Your task to perform on an android device: turn on translation in the chrome app Image 0: 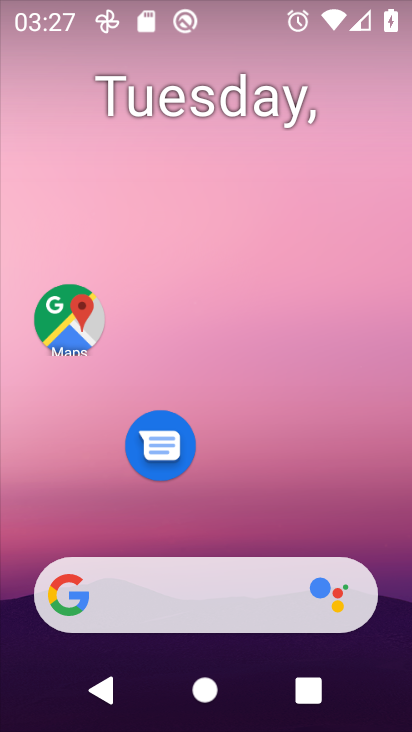
Step 0: click (315, 416)
Your task to perform on an android device: turn on translation in the chrome app Image 1: 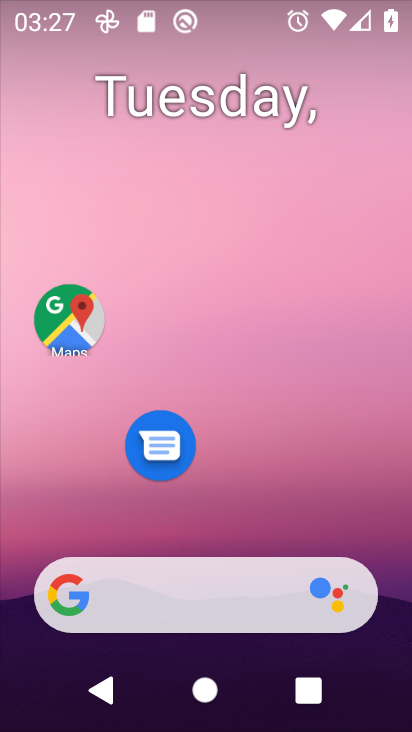
Step 1: drag from (270, 511) to (151, 8)
Your task to perform on an android device: turn on translation in the chrome app Image 2: 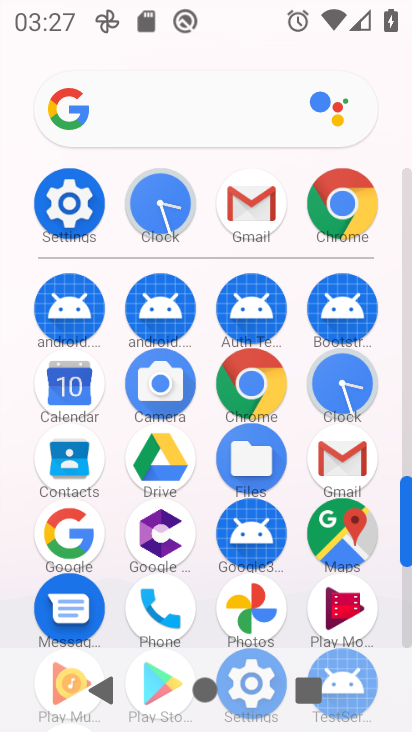
Step 2: click (248, 377)
Your task to perform on an android device: turn on translation in the chrome app Image 3: 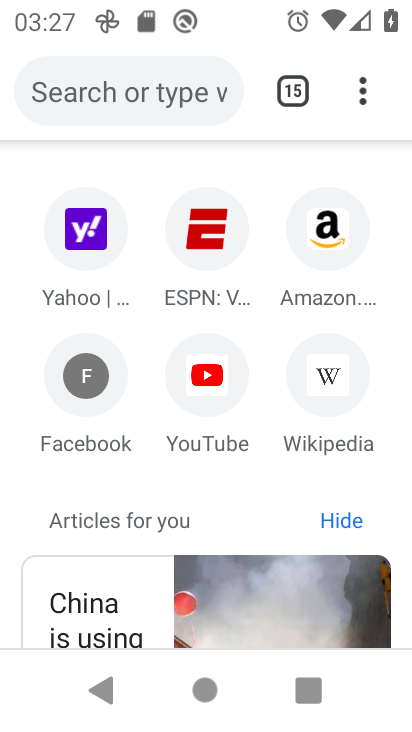
Step 3: click (362, 88)
Your task to perform on an android device: turn on translation in the chrome app Image 4: 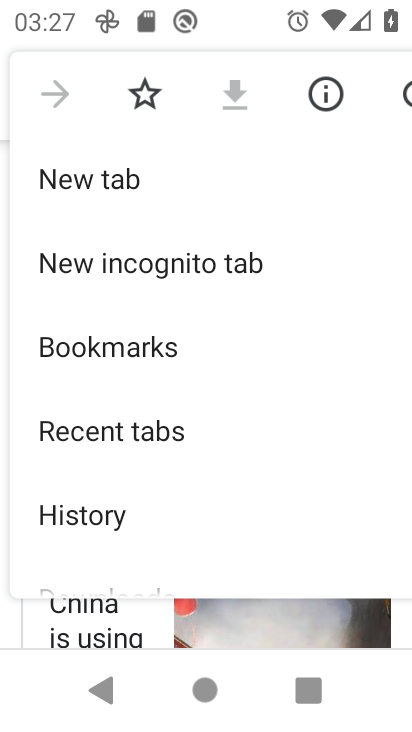
Step 4: drag from (191, 457) to (146, 153)
Your task to perform on an android device: turn on translation in the chrome app Image 5: 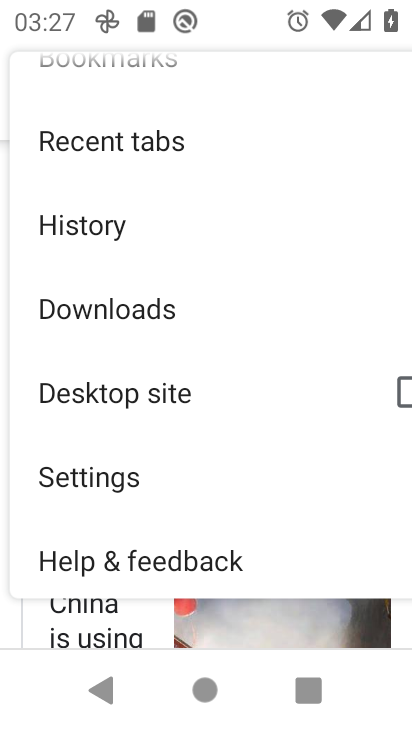
Step 5: click (108, 479)
Your task to perform on an android device: turn on translation in the chrome app Image 6: 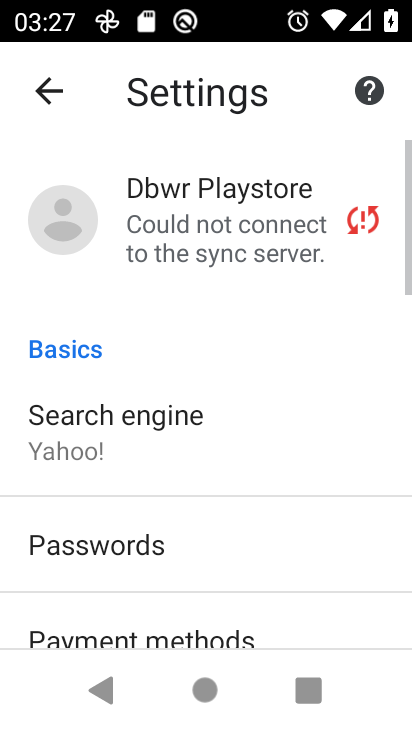
Step 6: drag from (183, 467) to (127, 55)
Your task to perform on an android device: turn on translation in the chrome app Image 7: 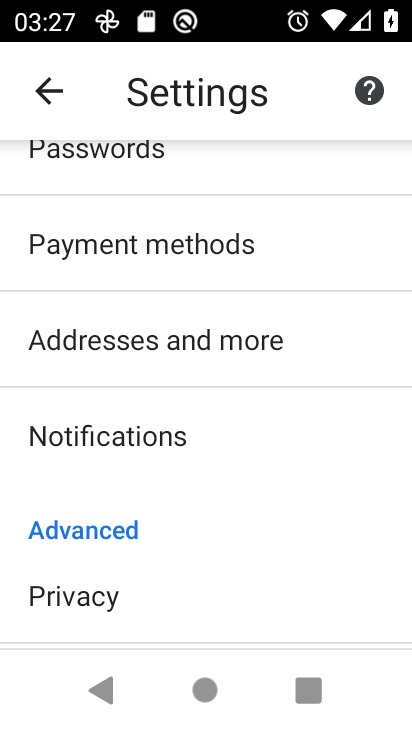
Step 7: drag from (141, 512) to (109, 242)
Your task to perform on an android device: turn on translation in the chrome app Image 8: 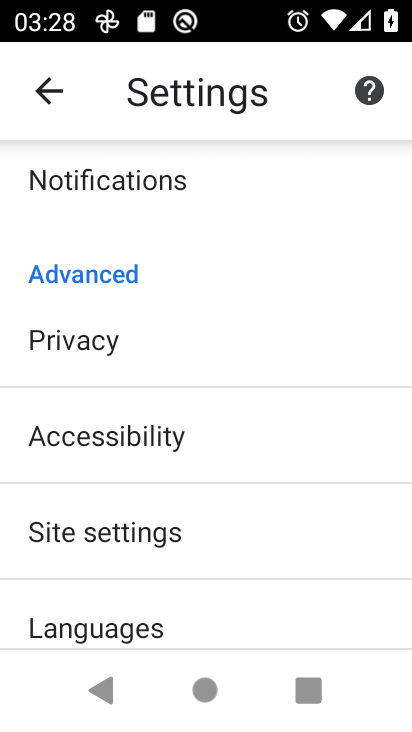
Step 8: drag from (155, 492) to (124, 308)
Your task to perform on an android device: turn on translation in the chrome app Image 9: 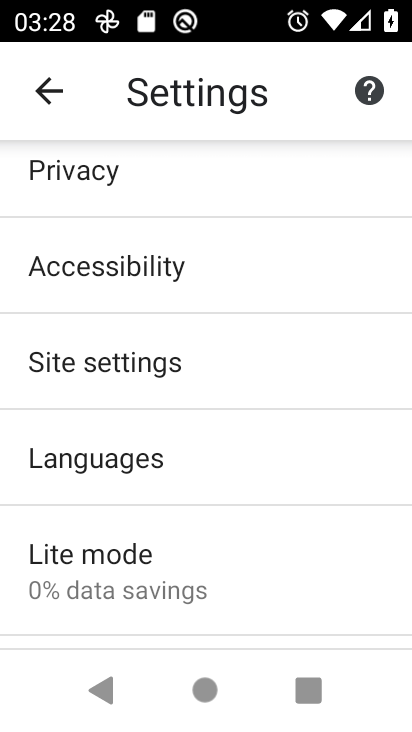
Step 9: click (106, 451)
Your task to perform on an android device: turn on translation in the chrome app Image 10: 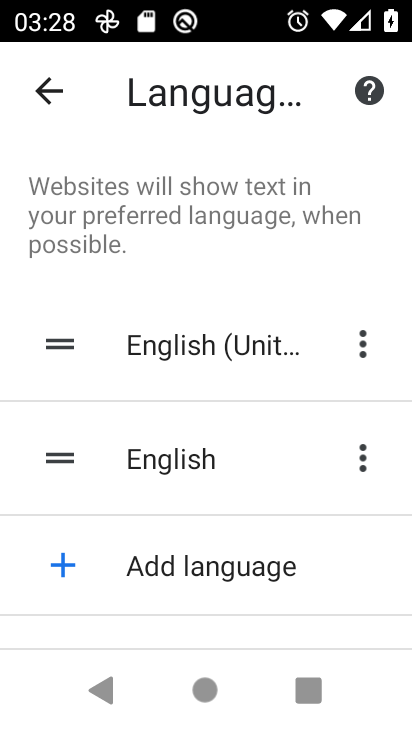
Step 10: task complete